Your task to perform on an android device: open a new tab in the chrome app Image 0: 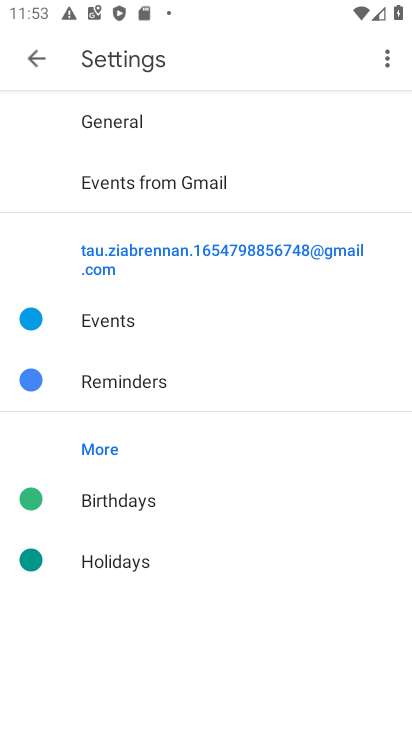
Step 0: press home button
Your task to perform on an android device: open a new tab in the chrome app Image 1: 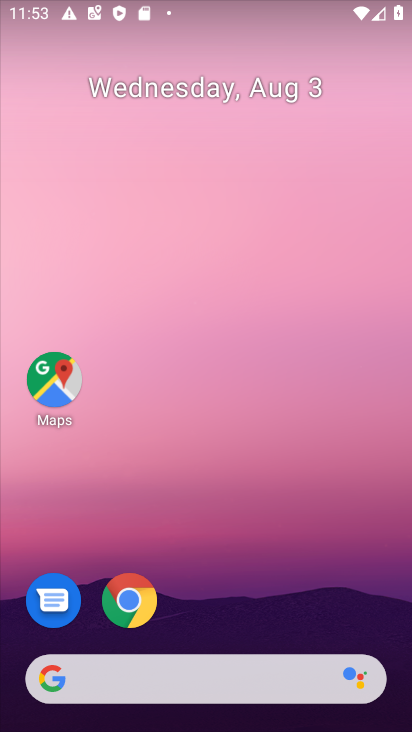
Step 1: click (129, 593)
Your task to perform on an android device: open a new tab in the chrome app Image 2: 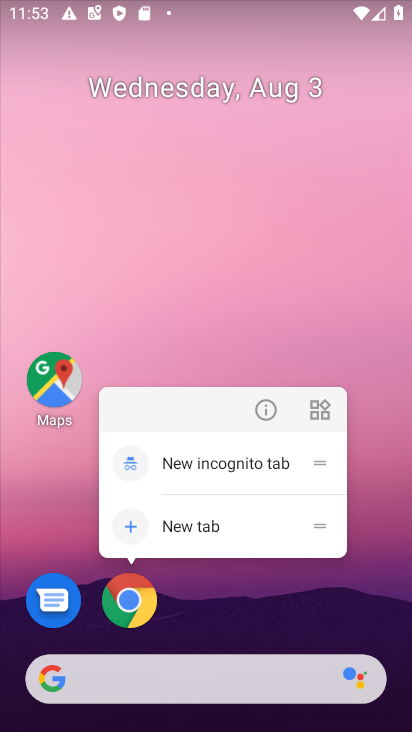
Step 2: click (129, 595)
Your task to perform on an android device: open a new tab in the chrome app Image 3: 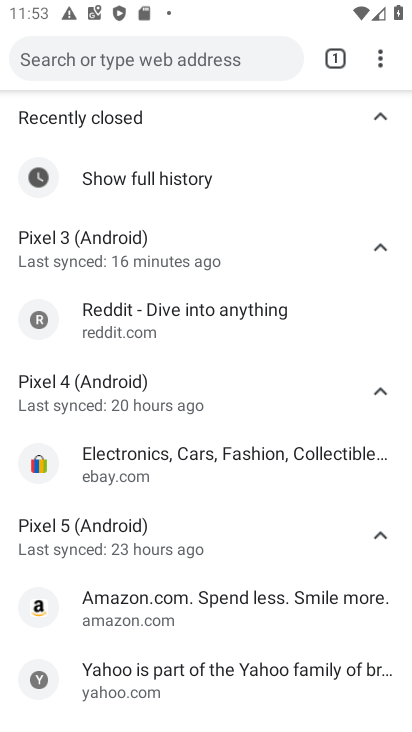
Step 3: task complete